Your task to perform on an android device: Show me productivity apps on the Play Store Image 0: 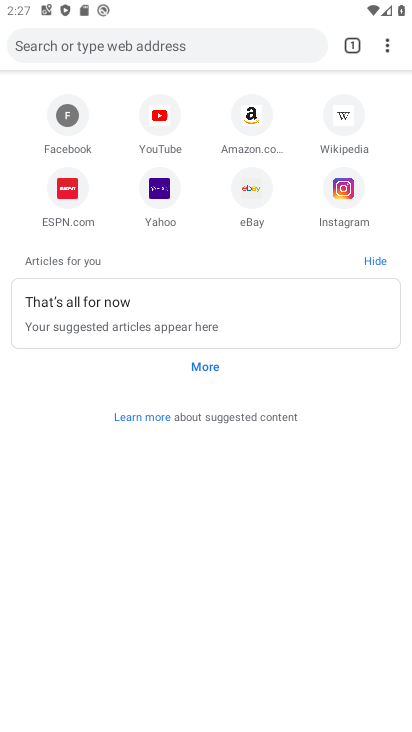
Step 0: press back button
Your task to perform on an android device: Show me productivity apps on the Play Store Image 1: 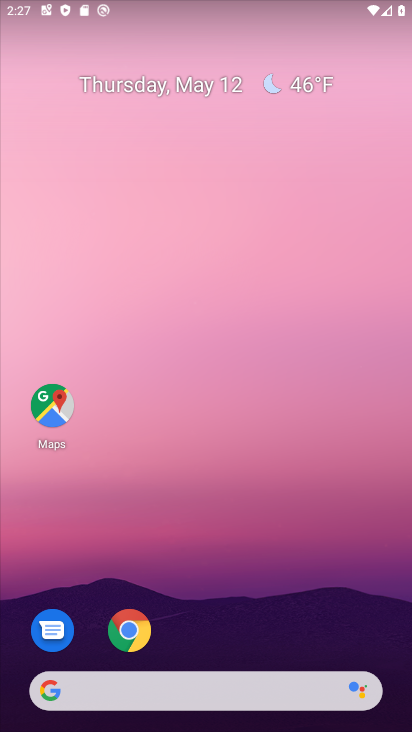
Step 1: drag from (271, 581) to (234, 47)
Your task to perform on an android device: Show me productivity apps on the Play Store Image 2: 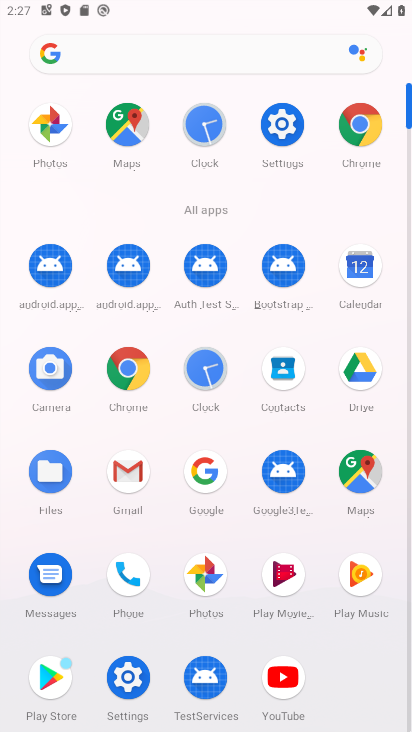
Step 2: click (56, 677)
Your task to perform on an android device: Show me productivity apps on the Play Store Image 3: 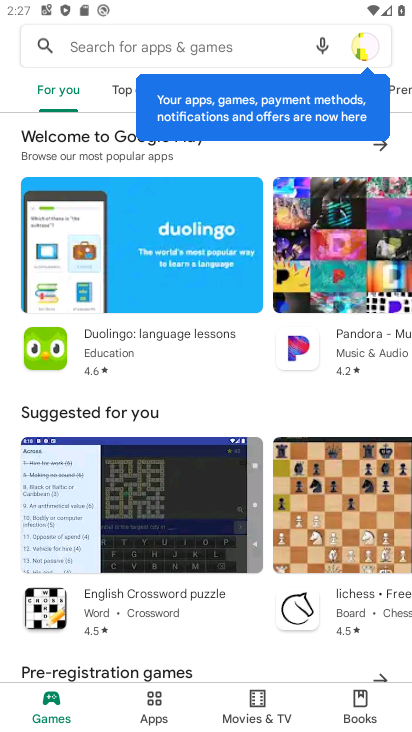
Step 3: click (154, 700)
Your task to perform on an android device: Show me productivity apps on the Play Store Image 4: 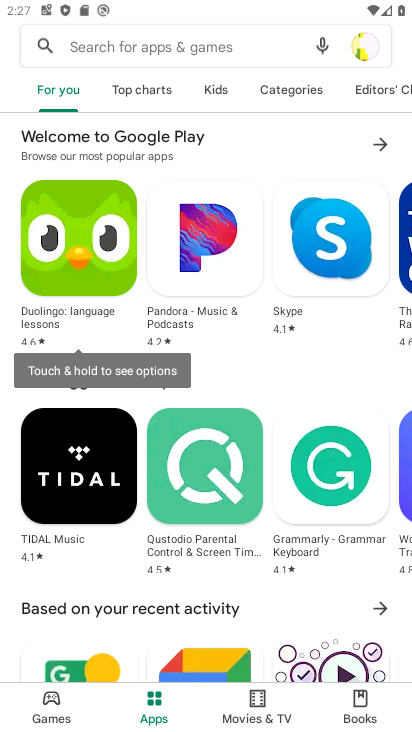
Step 4: click (295, 89)
Your task to perform on an android device: Show me productivity apps on the Play Store Image 5: 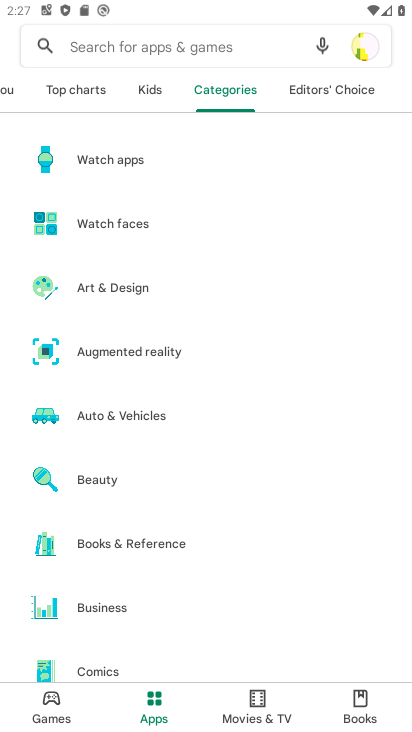
Step 5: drag from (167, 488) to (191, 374)
Your task to perform on an android device: Show me productivity apps on the Play Store Image 6: 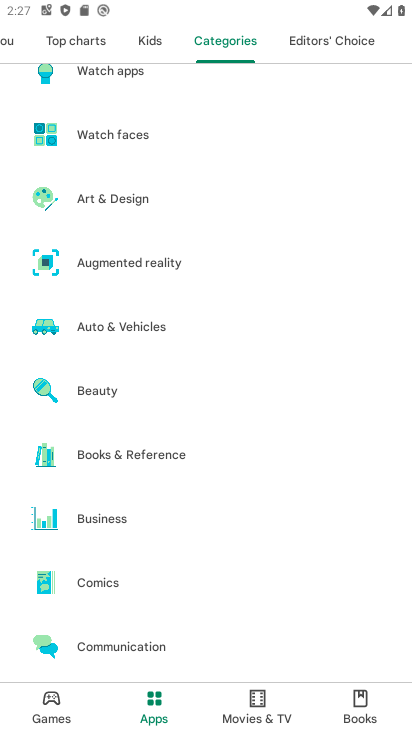
Step 6: drag from (122, 479) to (175, 379)
Your task to perform on an android device: Show me productivity apps on the Play Store Image 7: 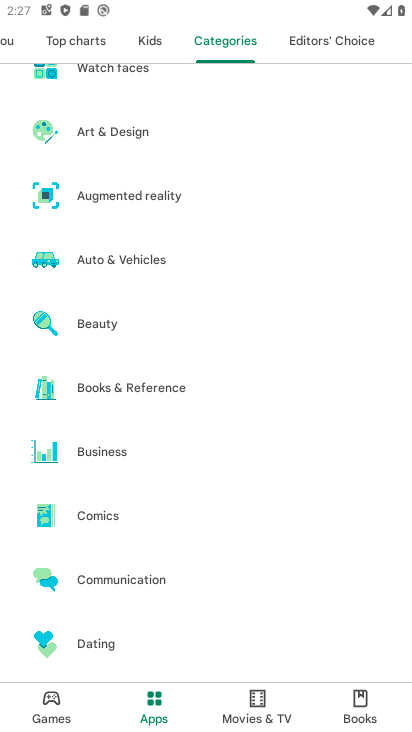
Step 7: drag from (123, 492) to (164, 366)
Your task to perform on an android device: Show me productivity apps on the Play Store Image 8: 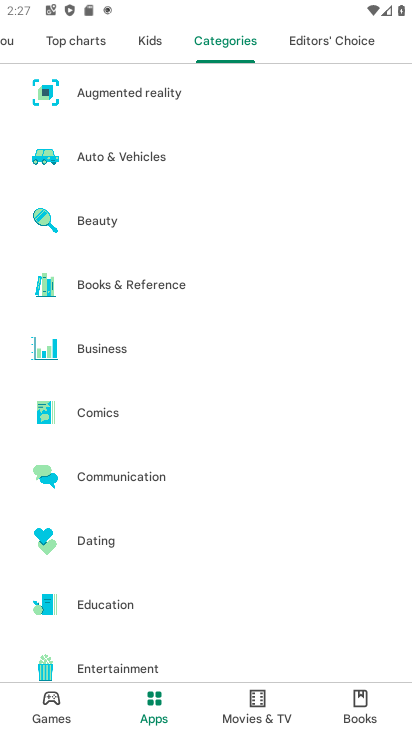
Step 8: drag from (113, 460) to (153, 368)
Your task to perform on an android device: Show me productivity apps on the Play Store Image 9: 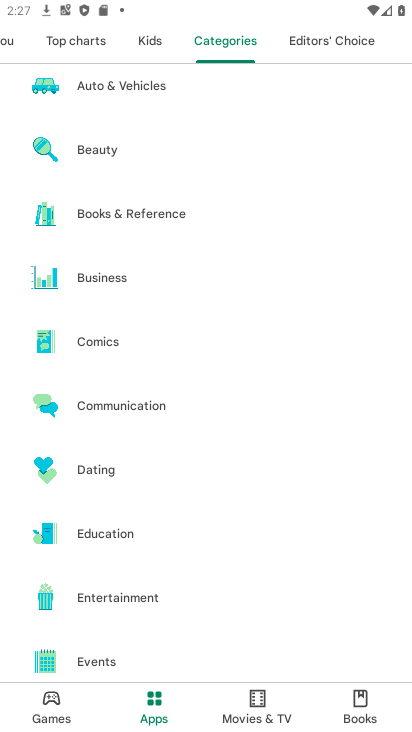
Step 9: drag from (105, 443) to (144, 357)
Your task to perform on an android device: Show me productivity apps on the Play Store Image 10: 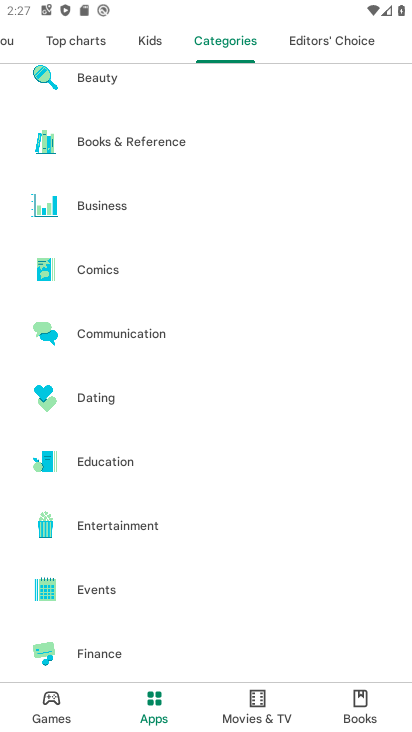
Step 10: drag from (82, 436) to (149, 342)
Your task to perform on an android device: Show me productivity apps on the Play Store Image 11: 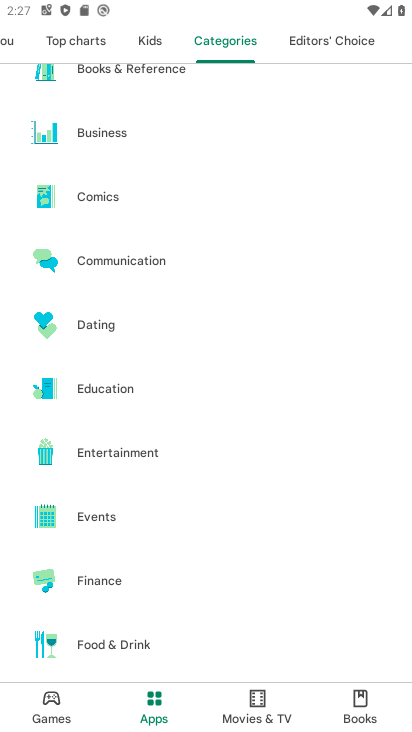
Step 11: drag from (98, 470) to (144, 354)
Your task to perform on an android device: Show me productivity apps on the Play Store Image 12: 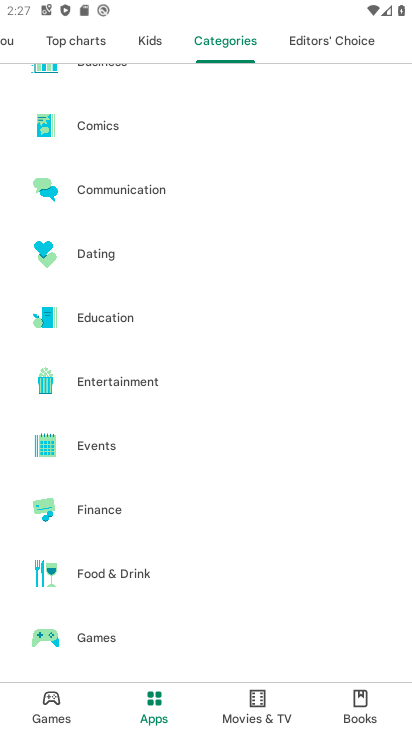
Step 12: drag from (97, 479) to (151, 299)
Your task to perform on an android device: Show me productivity apps on the Play Store Image 13: 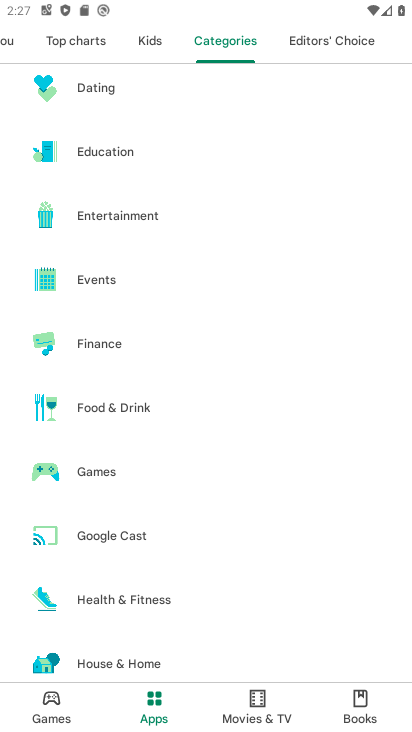
Step 13: drag from (102, 368) to (153, 249)
Your task to perform on an android device: Show me productivity apps on the Play Store Image 14: 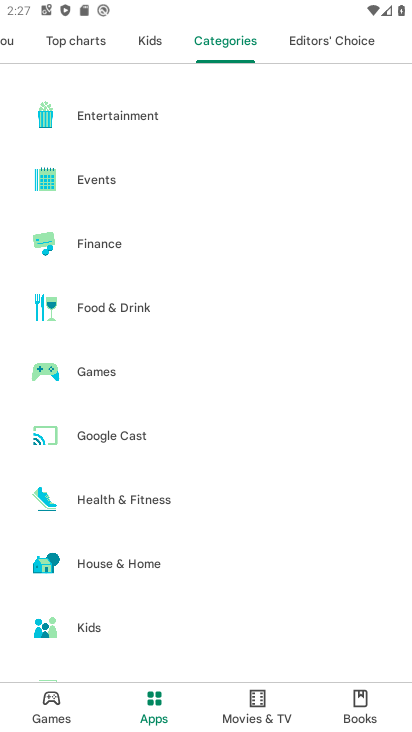
Step 14: drag from (105, 475) to (156, 352)
Your task to perform on an android device: Show me productivity apps on the Play Store Image 15: 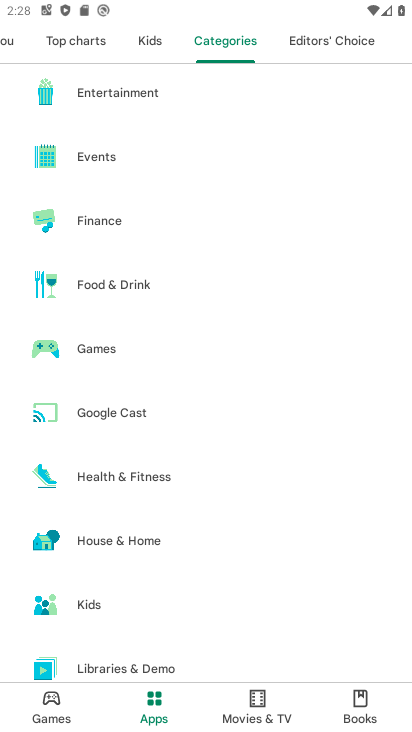
Step 15: drag from (94, 506) to (142, 351)
Your task to perform on an android device: Show me productivity apps on the Play Store Image 16: 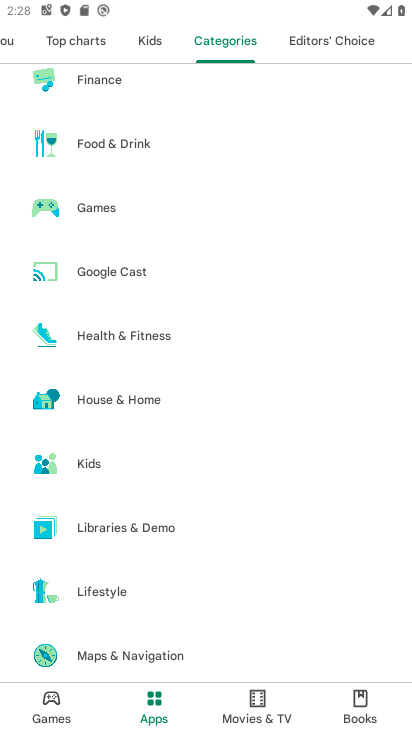
Step 16: drag from (105, 425) to (188, 287)
Your task to perform on an android device: Show me productivity apps on the Play Store Image 17: 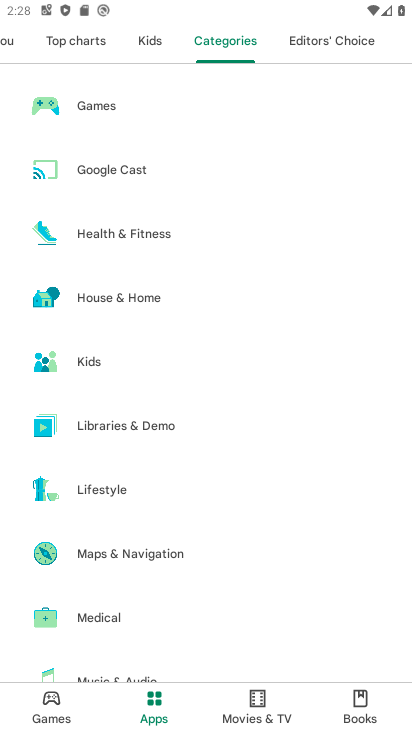
Step 17: drag from (103, 460) to (237, 308)
Your task to perform on an android device: Show me productivity apps on the Play Store Image 18: 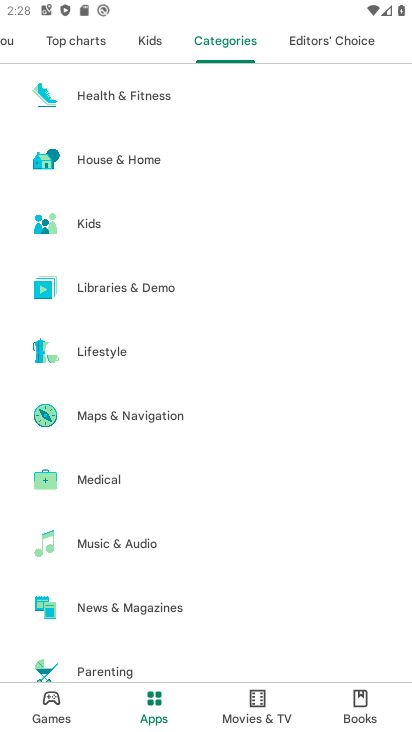
Step 18: drag from (102, 450) to (168, 319)
Your task to perform on an android device: Show me productivity apps on the Play Store Image 19: 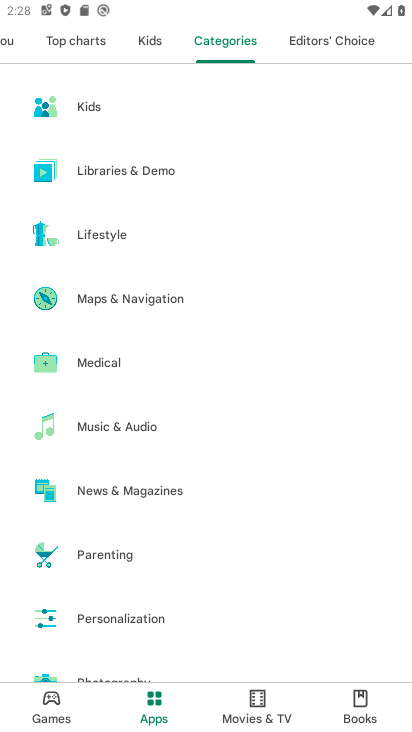
Step 19: drag from (97, 407) to (182, 260)
Your task to perform on an android device: Show me productivity apps on the Play Store Image 20: 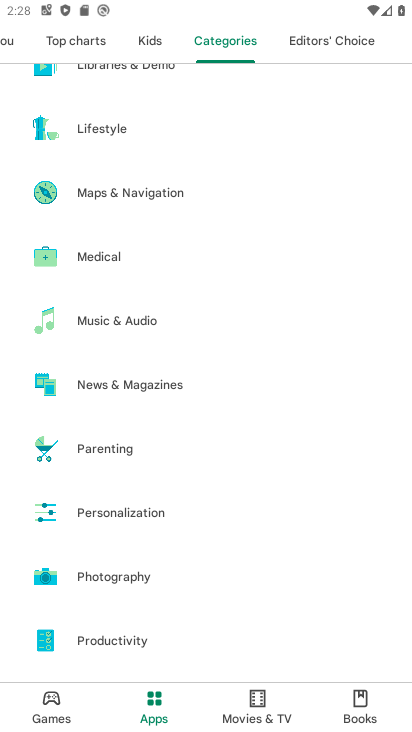
Step 20: drag from (90, 419) to (156, 302)
Your task to perform on an android device: Show me productivity apps on the Play Store Image 21: 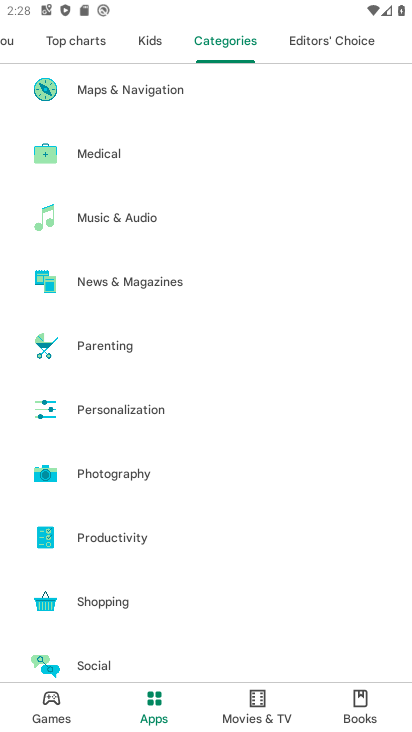
Step 21: click (117, 543)
Your task to perform on an android device: Show me productivity apps on the Play Store Image 22: 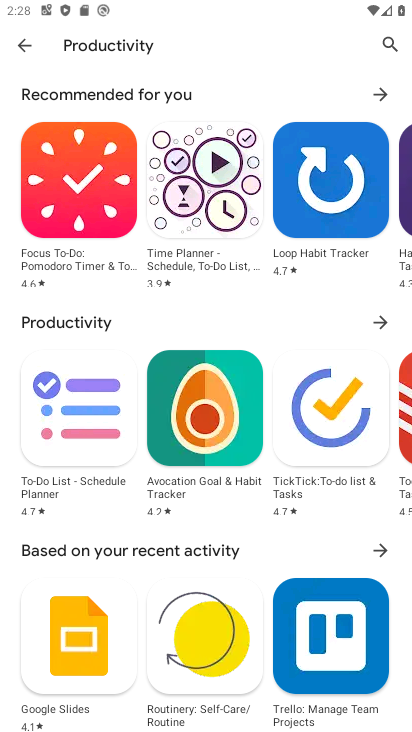
Step 22: task complete